Your task to perform on an android device: turn pop-ups on in chrome Image 0: 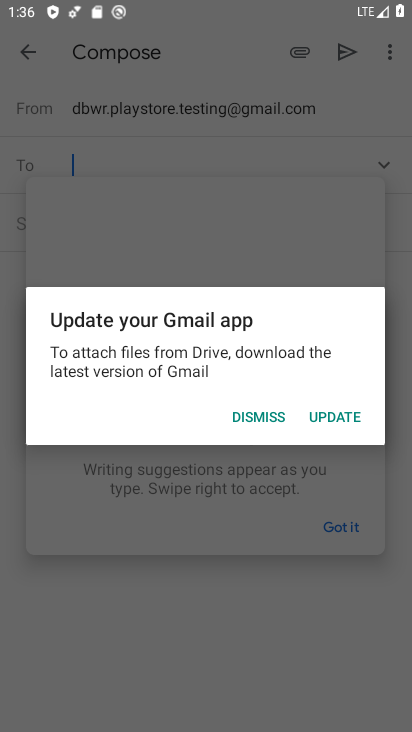
Step 0: press home button
Your task to perform on an android device: turn pop-ups on in chrome Image 1: 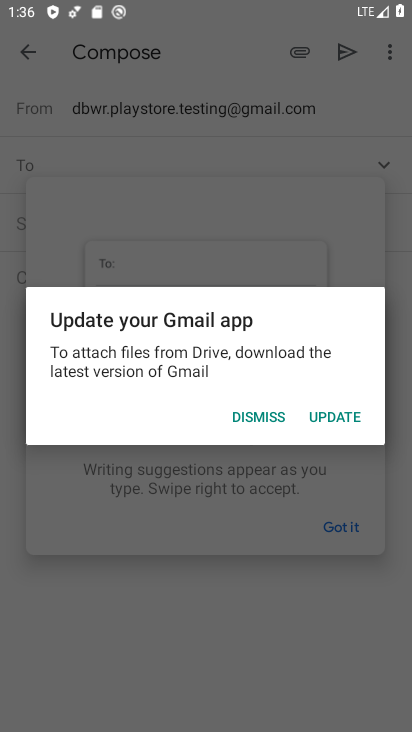
Step 1: drag from (263, 279) to (311, 9)
Your task to perform on an android device: turn pop-ups on in chrome Image 2: 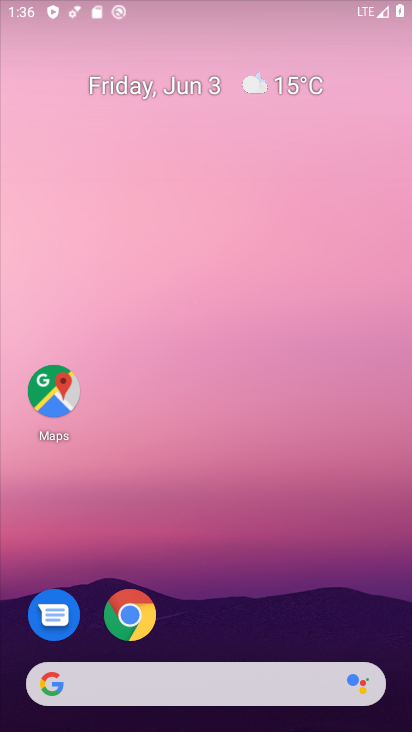
Step 2: drag from (202, 577) to (253, 156)
Your task to perform on an android device: turn pop-ups on in chrome Image 3: 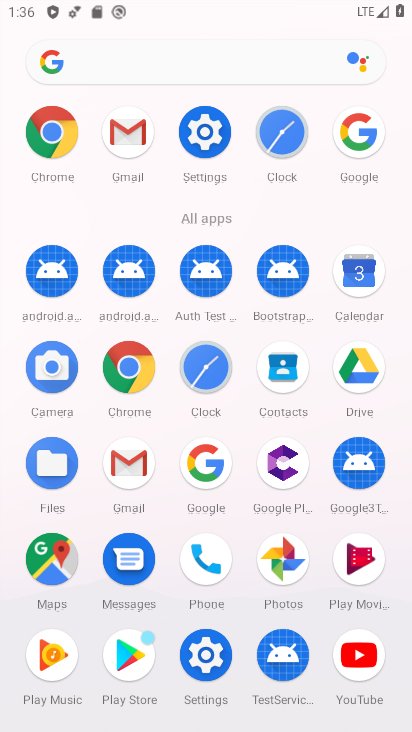
Step 3: click (131, 378)
Your task to perform on an android device: turn pop-ups on in chrome Image 4: 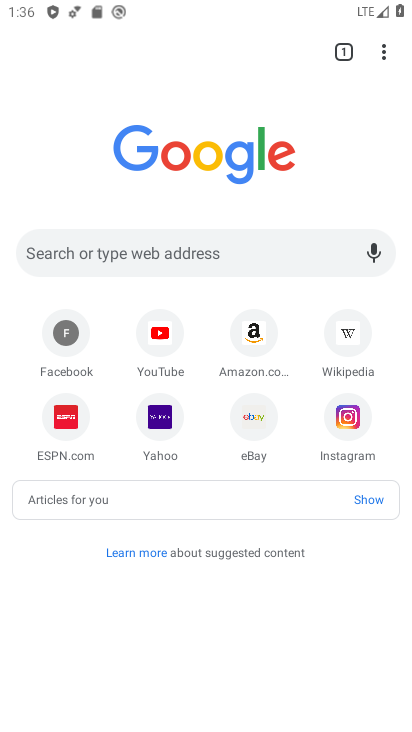
Step 4: drag from (197, 530) to (259, 98)
Your task to perform on an android device: turn pop-ups on in chrome Image 5: 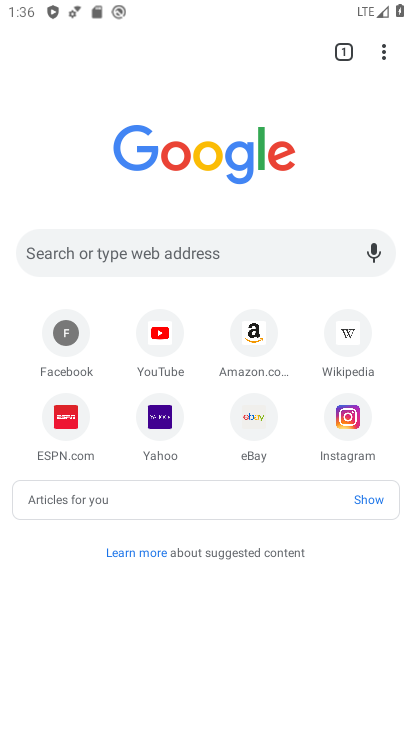
Step 5: click (385, 63)
Your task to perform on an android device: turn pop-ups on in chrome Image 6: 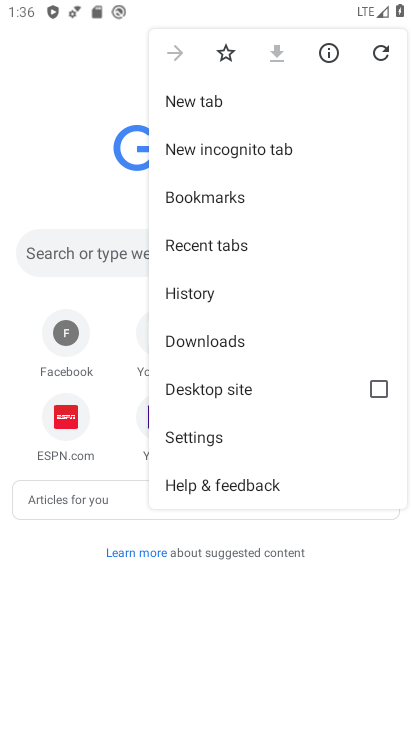
Step 6: drag from (259, 453) to (324, 8)
Your task to perform on an android device: turn pop-ups on in chrome Image 7: 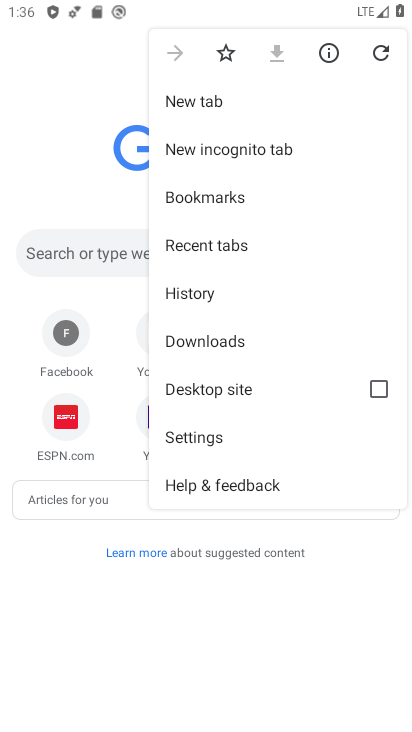
Step 7: click (200, 409)
Your task to perform on an android device: turn pop-ups on in chrome Image 8: 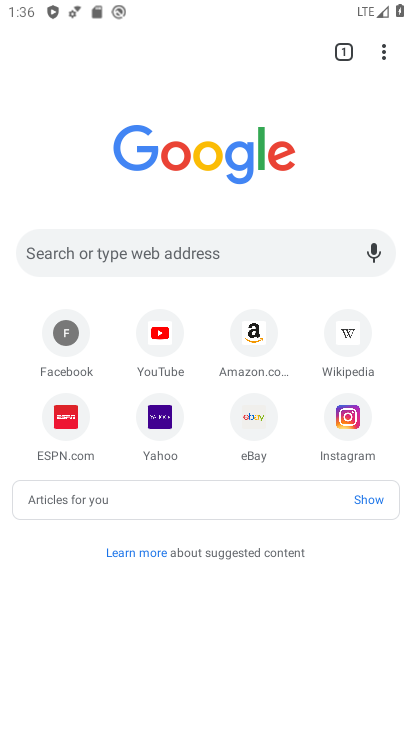
Step 8: click (381, 39)
Your task to perform on an android device: turn pop-ups on in chrome Image 9: 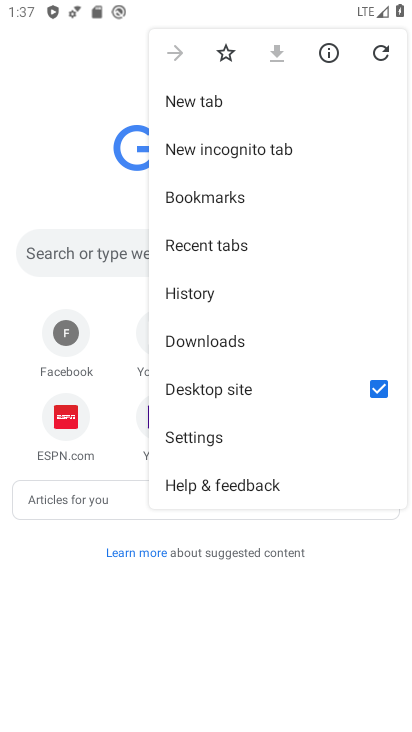
Step 9: click (380, 371)
Your task to perform on an android device: turn pop-ups on in chrome Image 10: 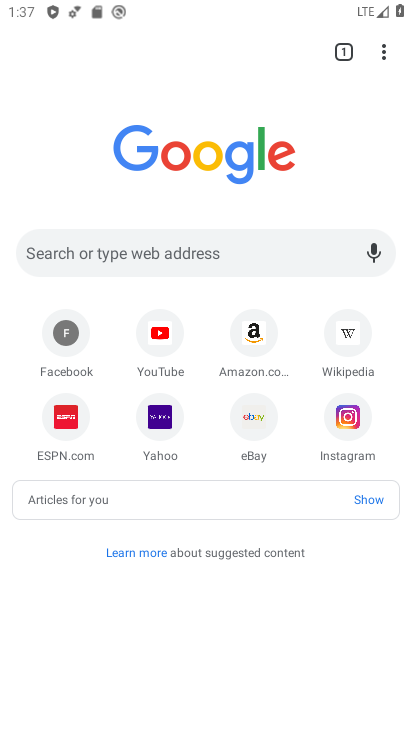
Step 10: click (396, 60)
Your task to perform on an android device: turn pop-ups on in chrome Image 11: 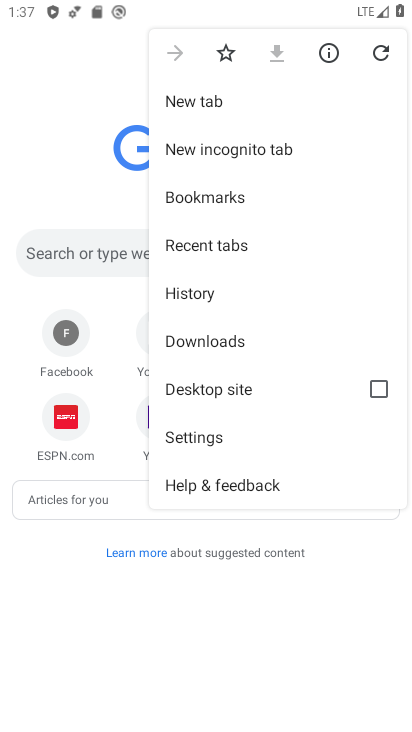
Step 11: click (234, 443)
Your task to perform on an android device: turn pop-ups on in chrome Image 12: 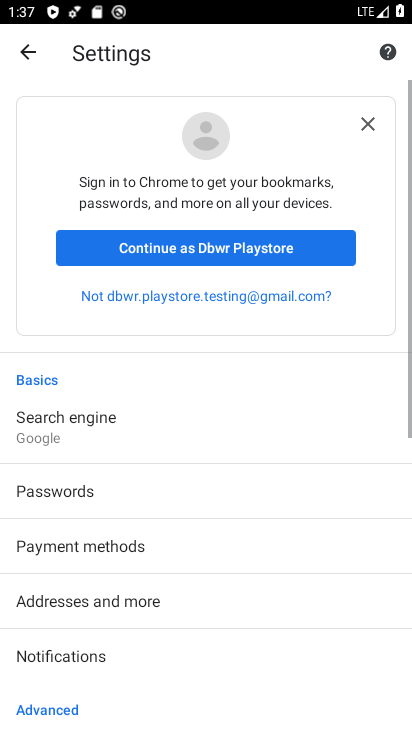
Step 12: drag from (209, 489) to (234, 155)
Your task to perform on an android device: turn pop-ups on in chrome Image 13: 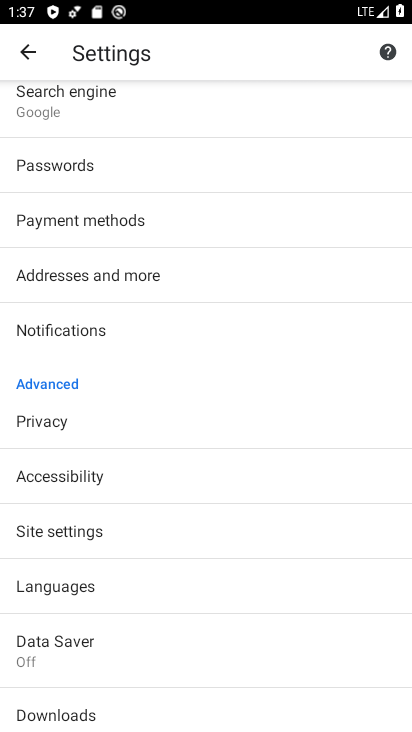
Step 13: drag from (154, 625) to (235, 74)
Your task to perform on an android device: turn pop-ups on in chrome Image 14: 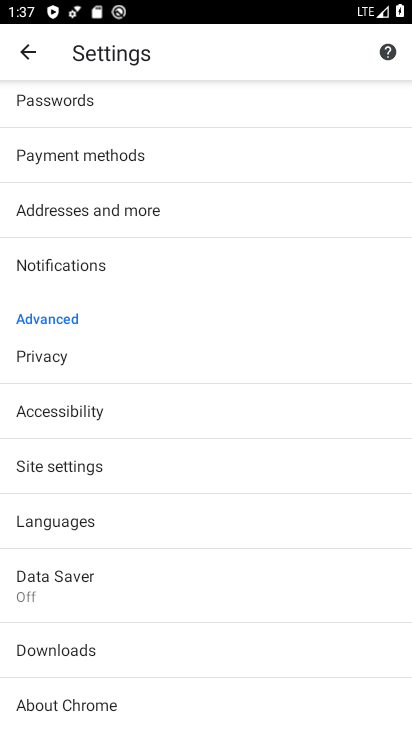
Step 14: drag from (171, 578) to (235, 286)
Your task to perform on an android device: turn pop-ups on in chrome Image 15: 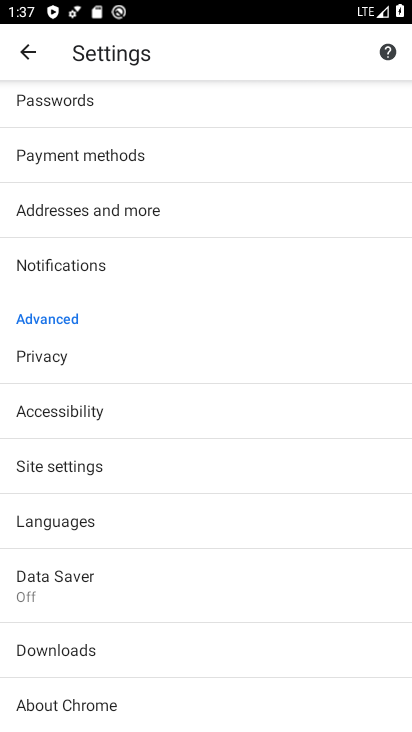
Step 15: click (107, 474)
Your task to perform on an android device: turn pop-ups on in chrome Image 16: 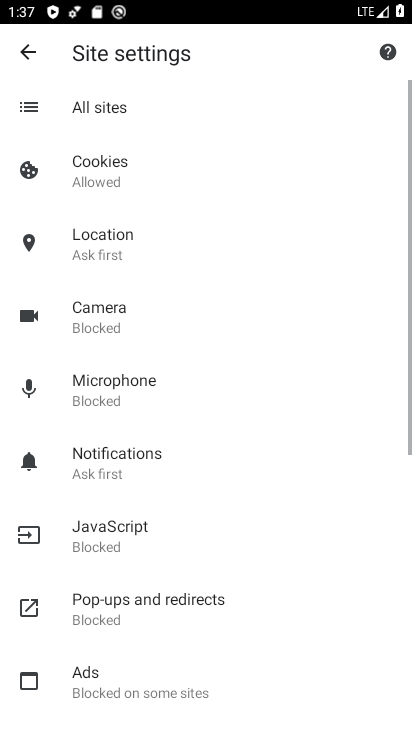
Step 16: drag from (209, 533) to (285, 0)
Your task to perform on an android device: turn pop-ups on in chrome Image 17: 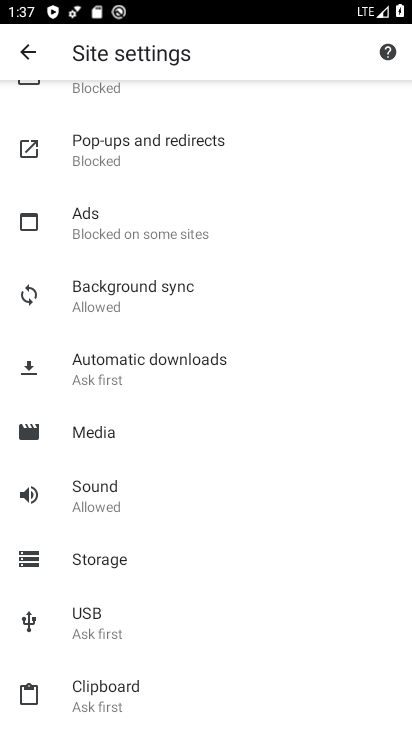
Step 17: click (132, 156)
Your task to perform on an android device: turn pop-ups on in chrome Image 18: 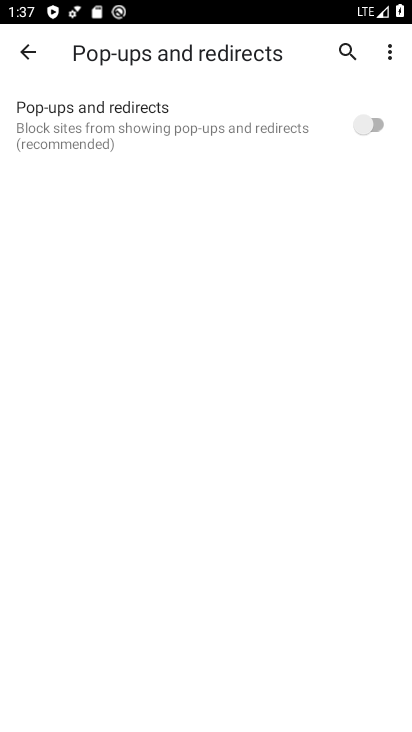
Step 18: drag from (307, 295) to (342, 66)
Your task to perform on an android device: turn pop-ups on in chrome Image 19: 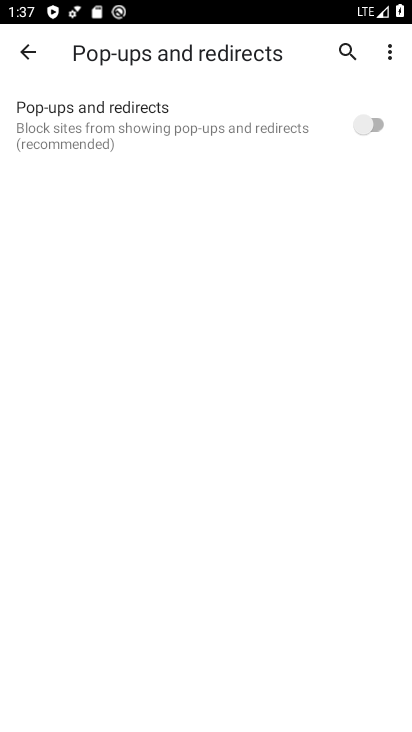
Step 19: click (355, 122)
Your task to perform on an android device: turn pop-ups on in chrome Image 20: 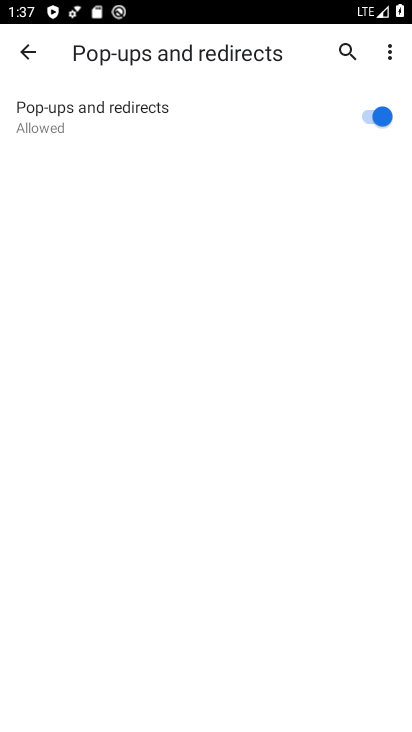
Step 20: task complete